Your task to perform on an android device: Go to ESPN.com Image 0: 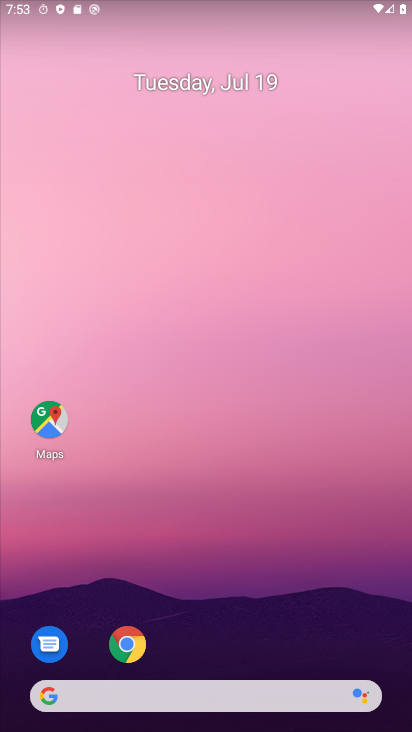
Step 0: click (97, 703)
Your task to perform on an android device: Go to ESPN.com Image 1: 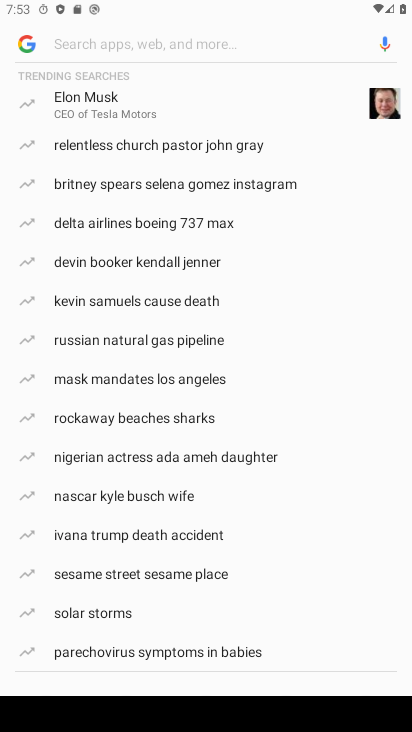
Step 1: click (82, 42)
Your task to perform on an android device: Go to ESPN.com Image 2: 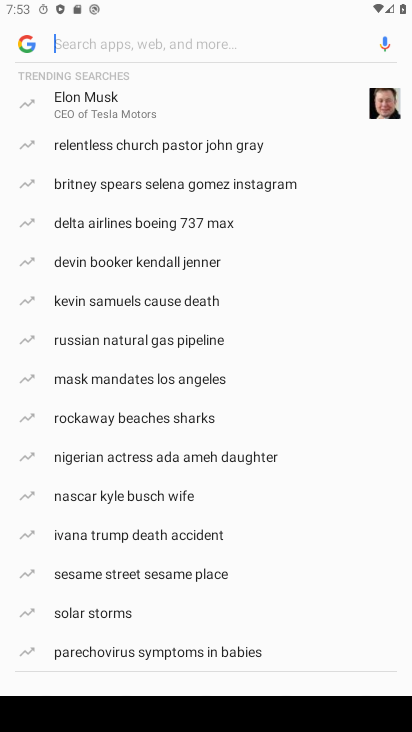
Step 2: type "ESPN.com"
Your task to perform on an android device: Go to ESPN.com Image 3: 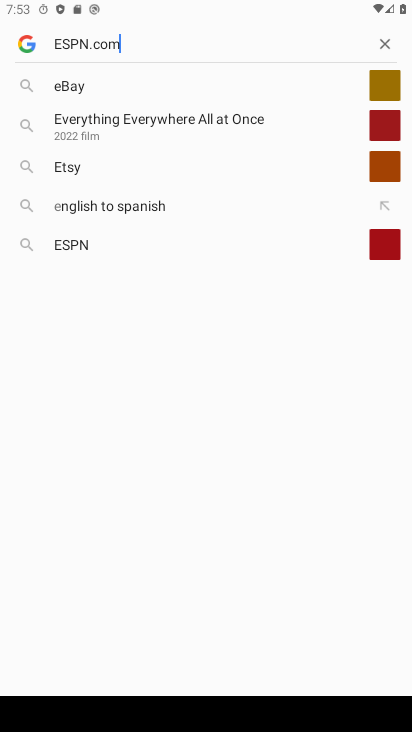
Step 3: type ""
Your task to perform on an android device: Go to ESPN.com Image 4: 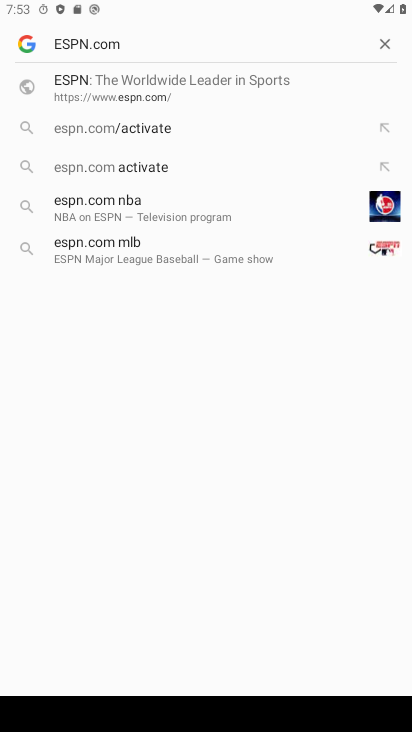
Step 4: type ""
Your task to perform on an android device: Go to ESPN.com Image 5: 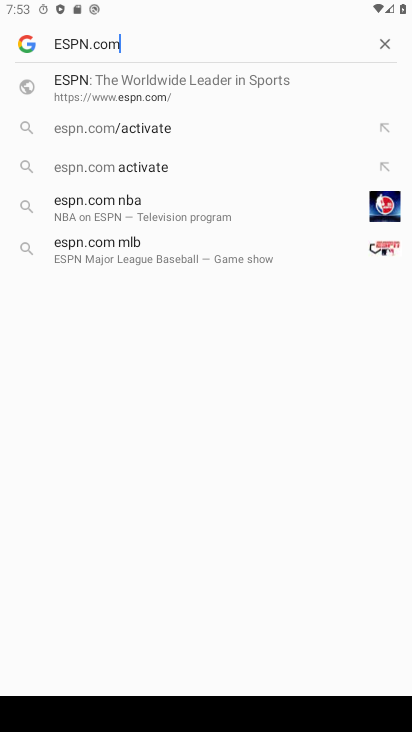
Step 5: type ""
Your task to perform on an android device: Go to ESPN.com Image 6: 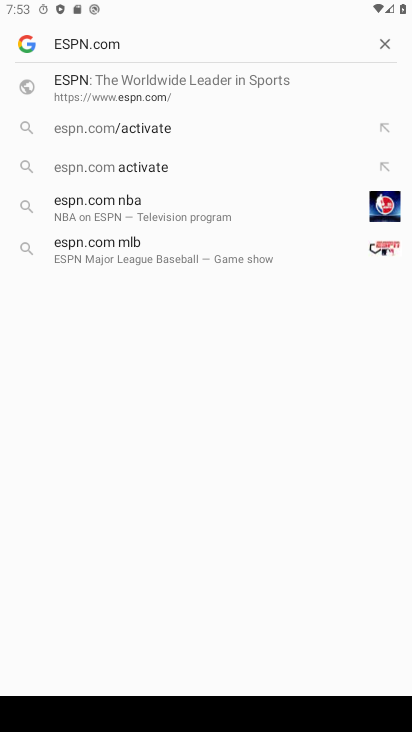
Step 6: task complete